Your task to perform on an android device: Open Android settings Image 0: 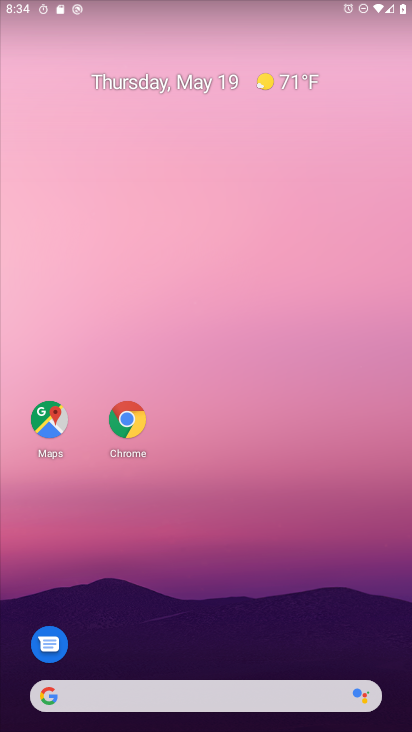
Step 0: drag from (200, 593) to (220, 297)
Your task to perform on an android device: Open Android settings Image 1: 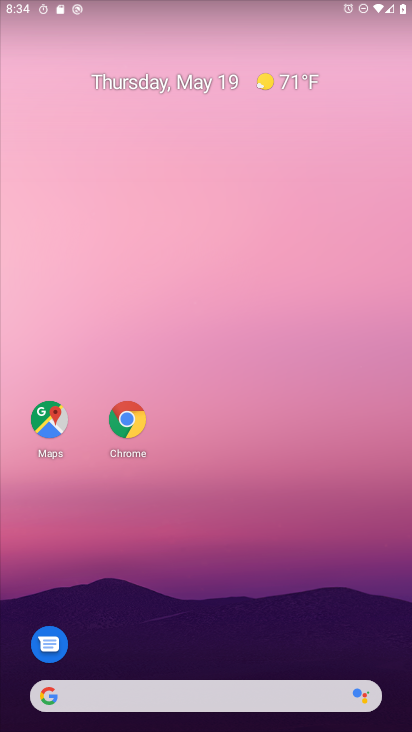
Step 1: drag from (168, 706) to (157, 350)
Your task to perform on an android device: Open Android settings Image 2: 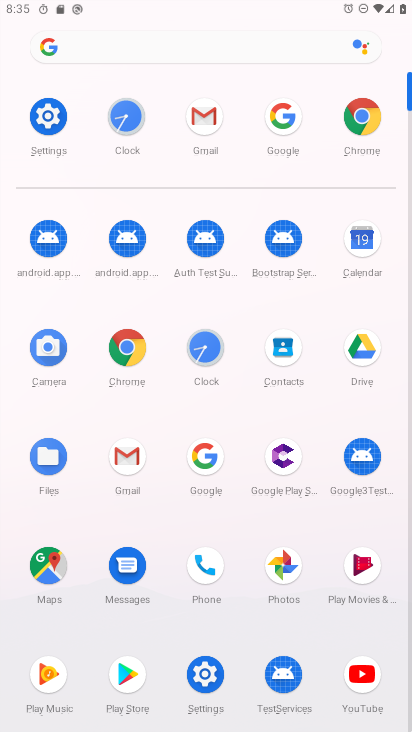
Step 2: click (45, 116)
Your task to perform on an android device: Open Android settings Image 3: 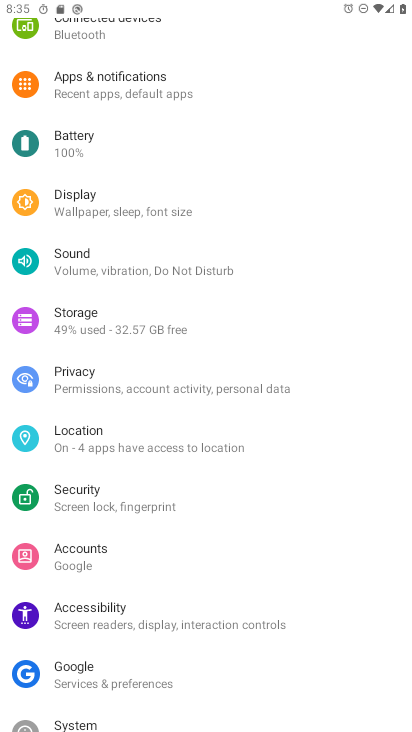
Step 3: task complete